Your task to perform on an android device: Open settings on Google Maps Image 0: 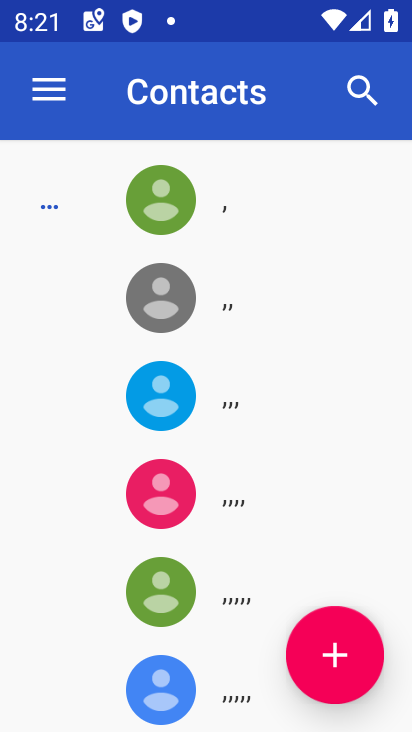
Step 0: press home button
Your task to perform on an android device: Open settings on Google Maps Image 1: 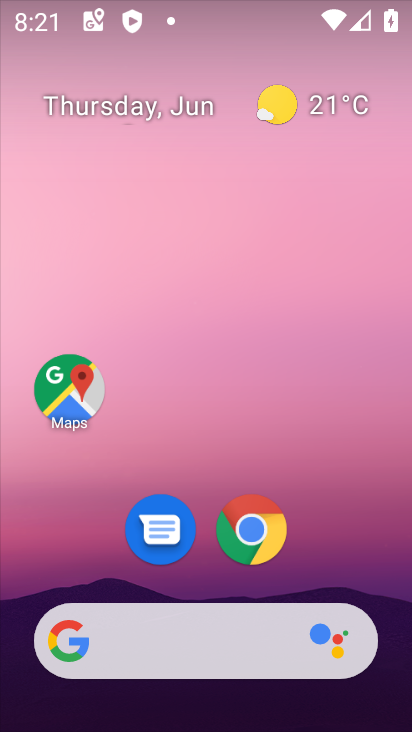
Step 1: click (65, 387)
Your task to perform on an android device: Open settings on Google Maps Image 2: 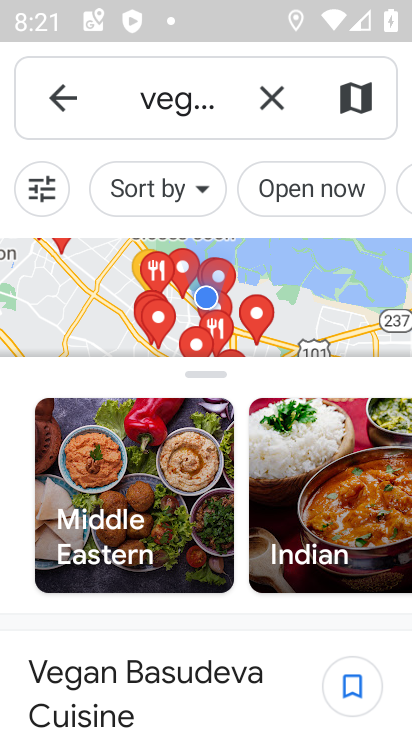
Step 2: click (59, 96)
Your task to perform on an android device: Open settings on Google Maps Image 3: 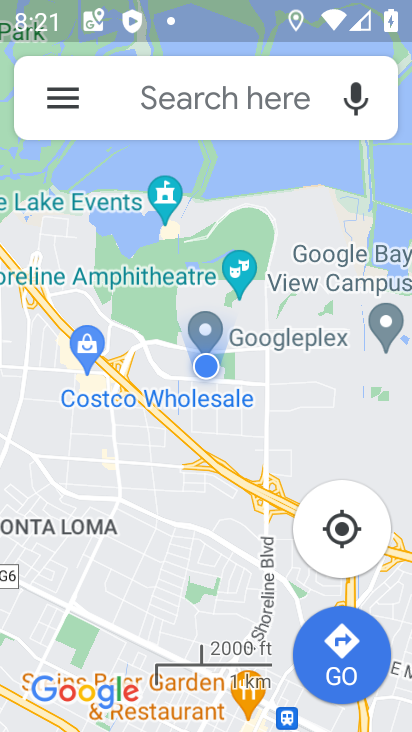
Step 3: click (62, 101)
Your task to perform on an android device: Open settings on Google Maps Image 4: 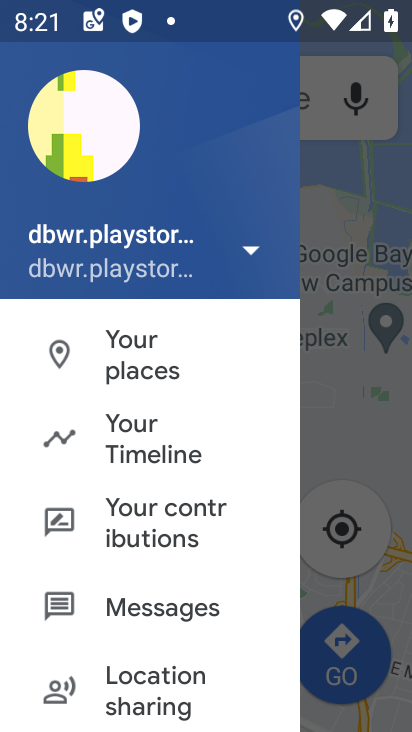
Step 4: drag from (195, 634) to (153, 296)
Your task to perform on an android device: Open settings on Google Maps Image 5: 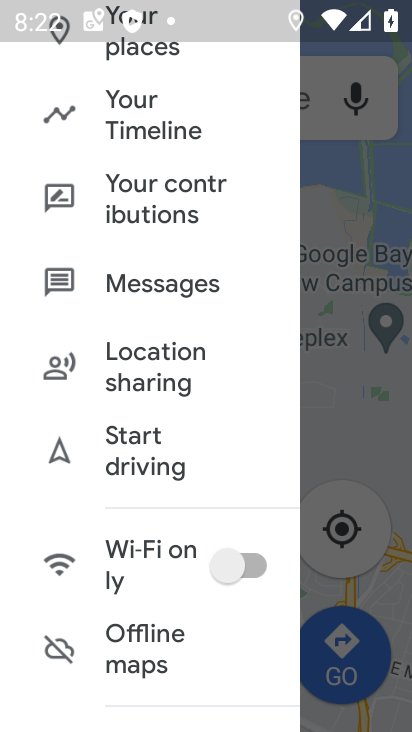
Step 5: drag from (163, 574) to (152, 261)
Your task to perform on an android device: Open settings on Google Maps Image 6: 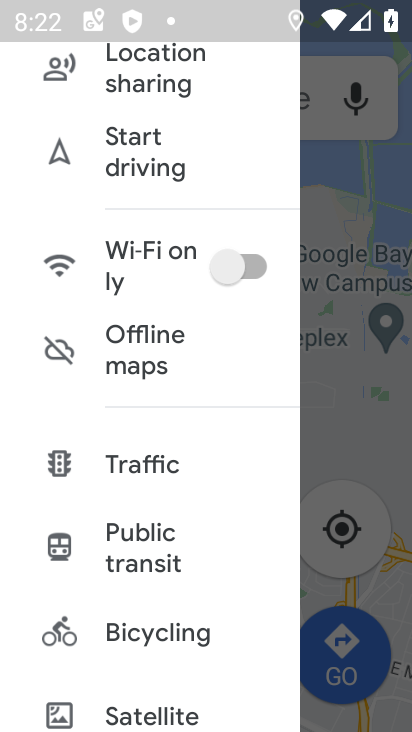
Step 6: drag from (166, 610) to (131, 301)
Your task to perform on an android device: Open settings on Google Maps Image 7: 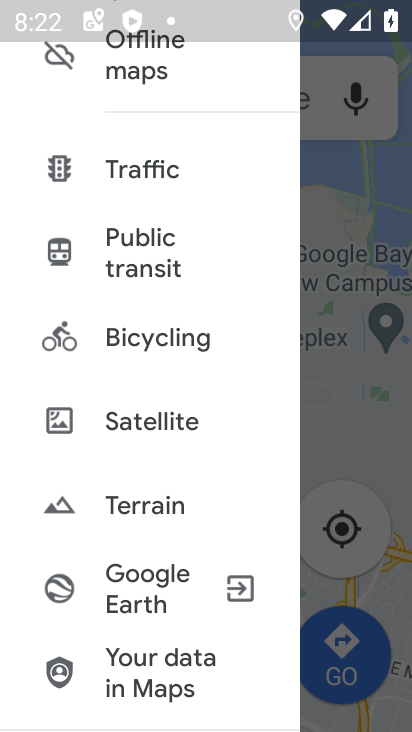
Step 7: drag from (168, 616) to (127, 273)
Your task to perform on an android device: Open settings on Google Maps Image 8: 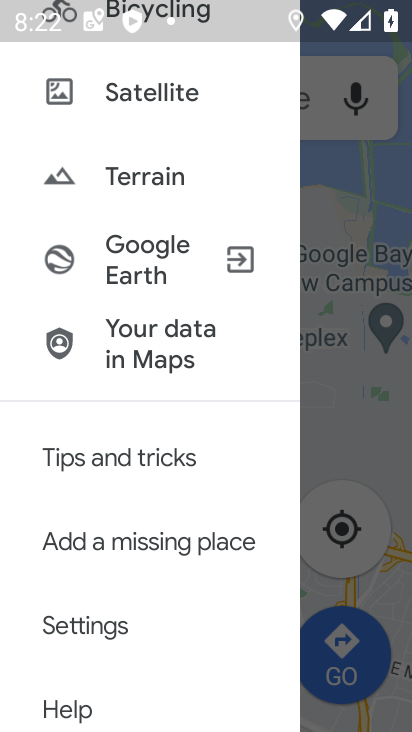
Step 8: click (85, 621)
Your task to perform on an android device: Open settings on Google Maps Image 9: 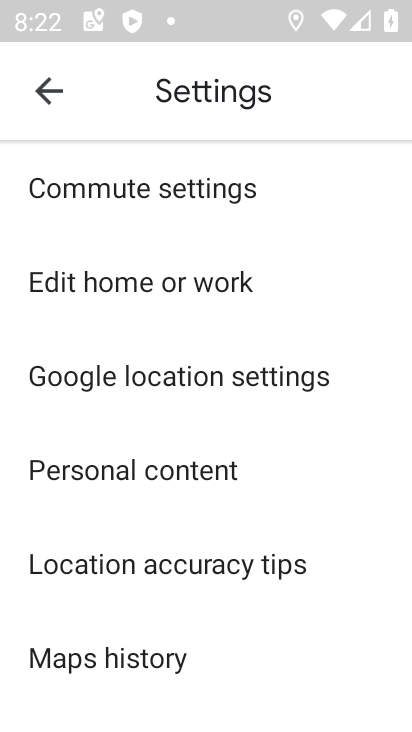
Step 9: task complete